Your task to perform on an android device: Search for a runner rug on Crate & Barrel Image 0: 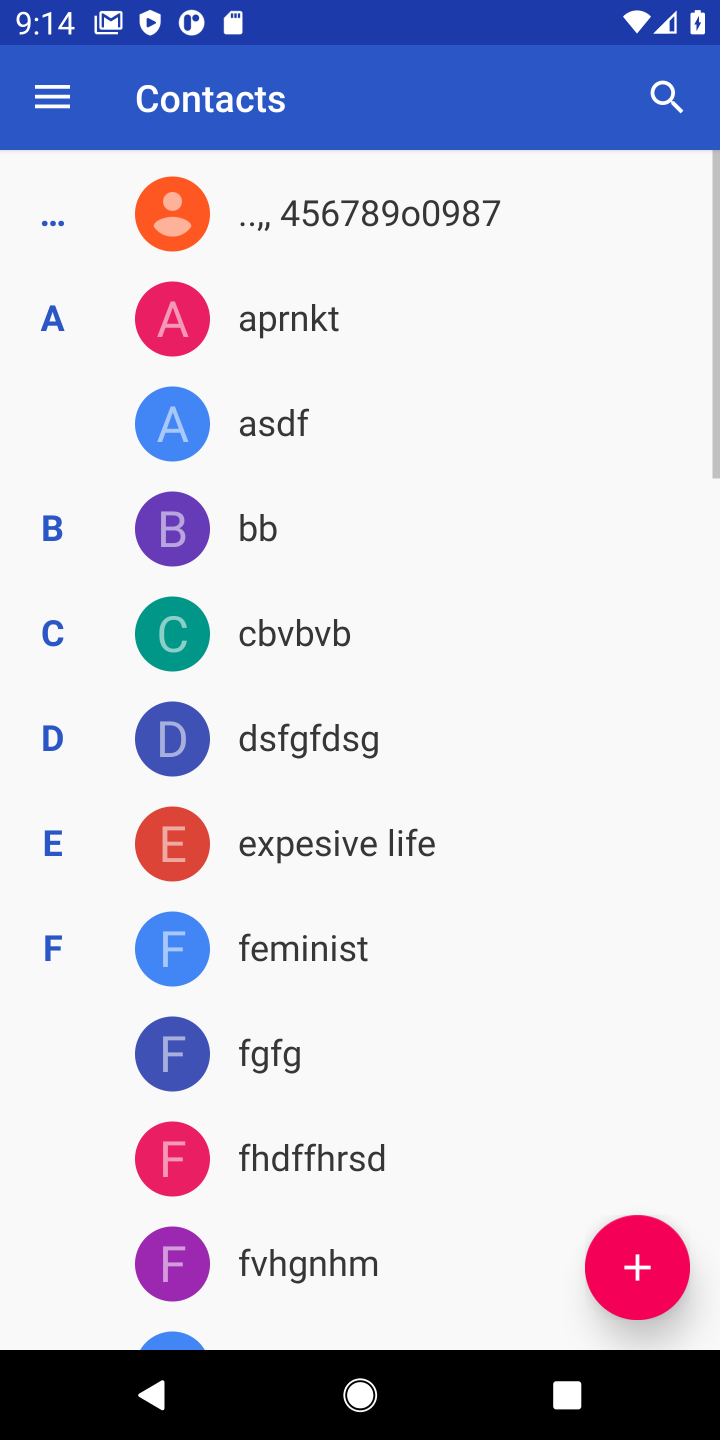
Step 0: press home button
Your task to perform on an android device: Search for a runner rug on Crate & Barrel Image 1: 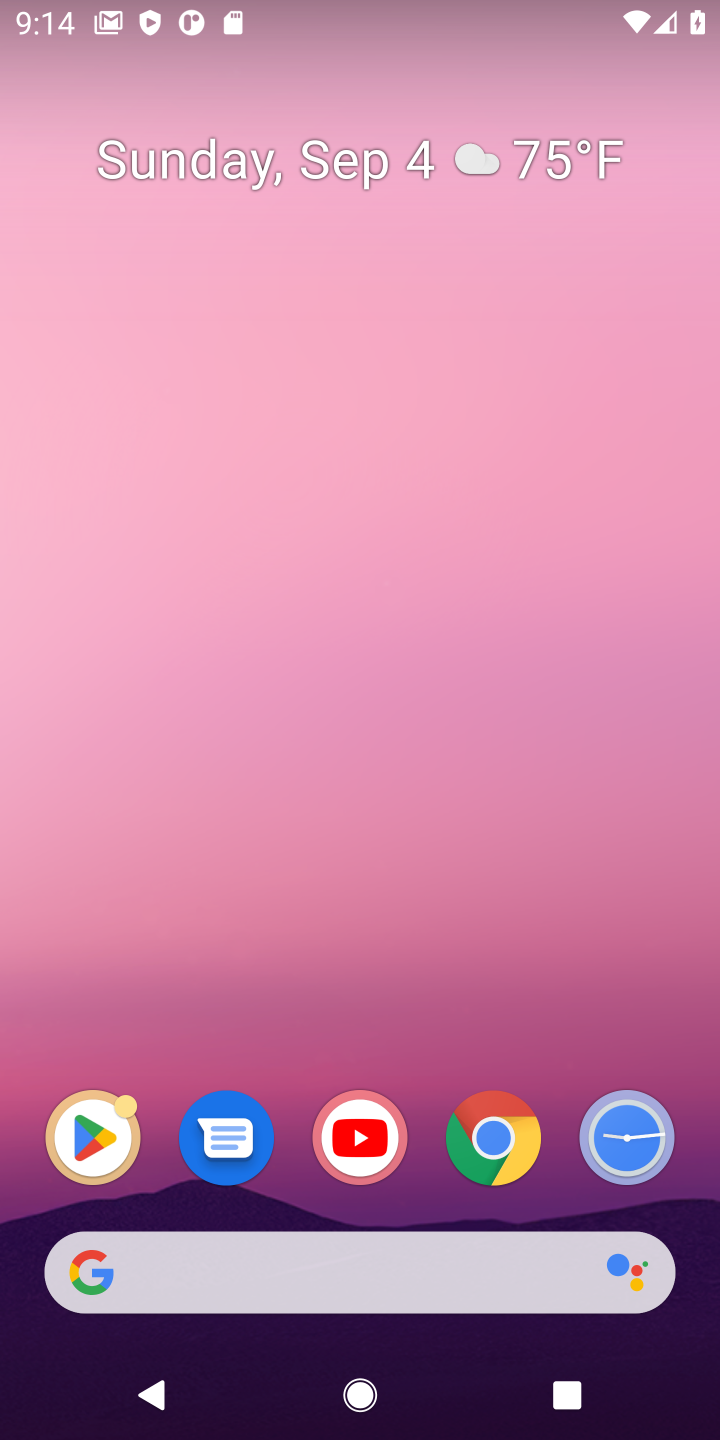
Step 1: click (485, 1123)
Your task to perform on an android device: Search for a runner rug on Crate & Barrel Image 2: 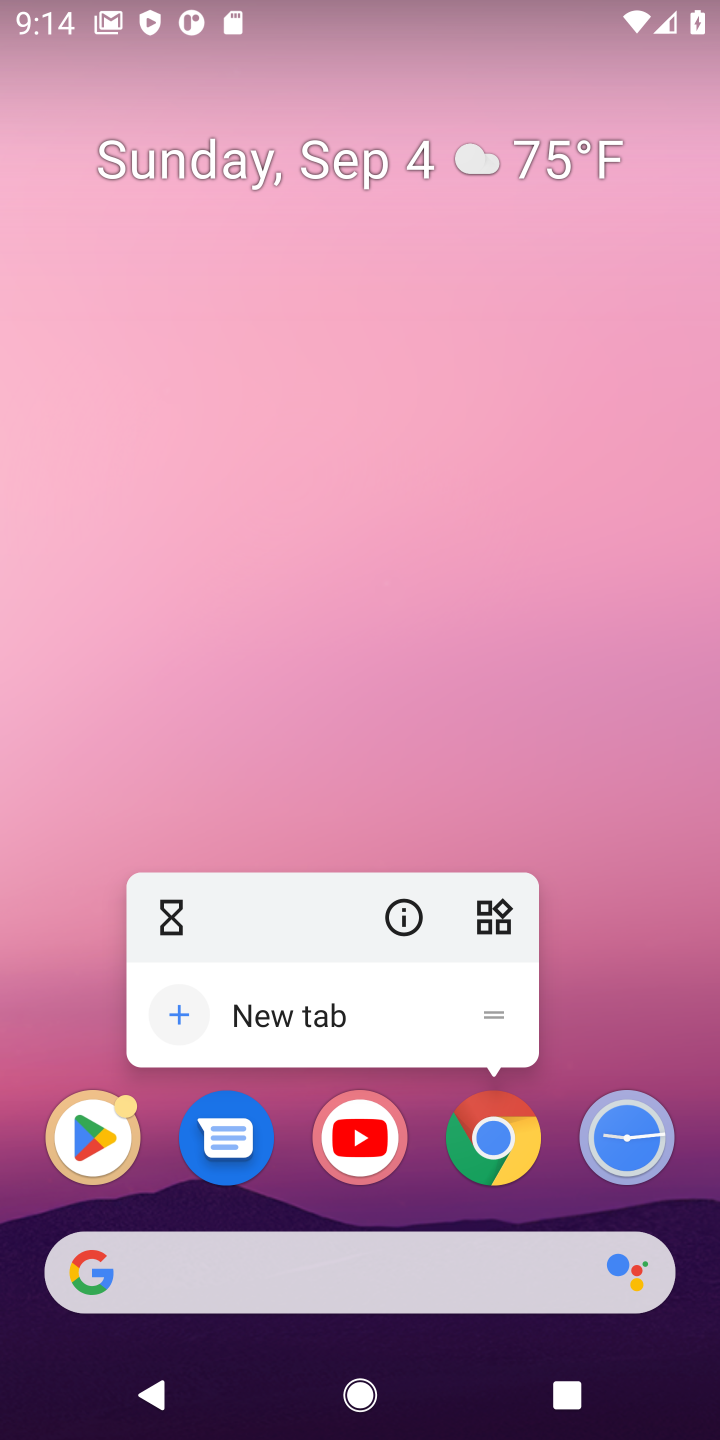
Step 2: click (485, 1124)
Your task to perform on an android device: Search for a runner rug on Crate & Barrel Image 3: 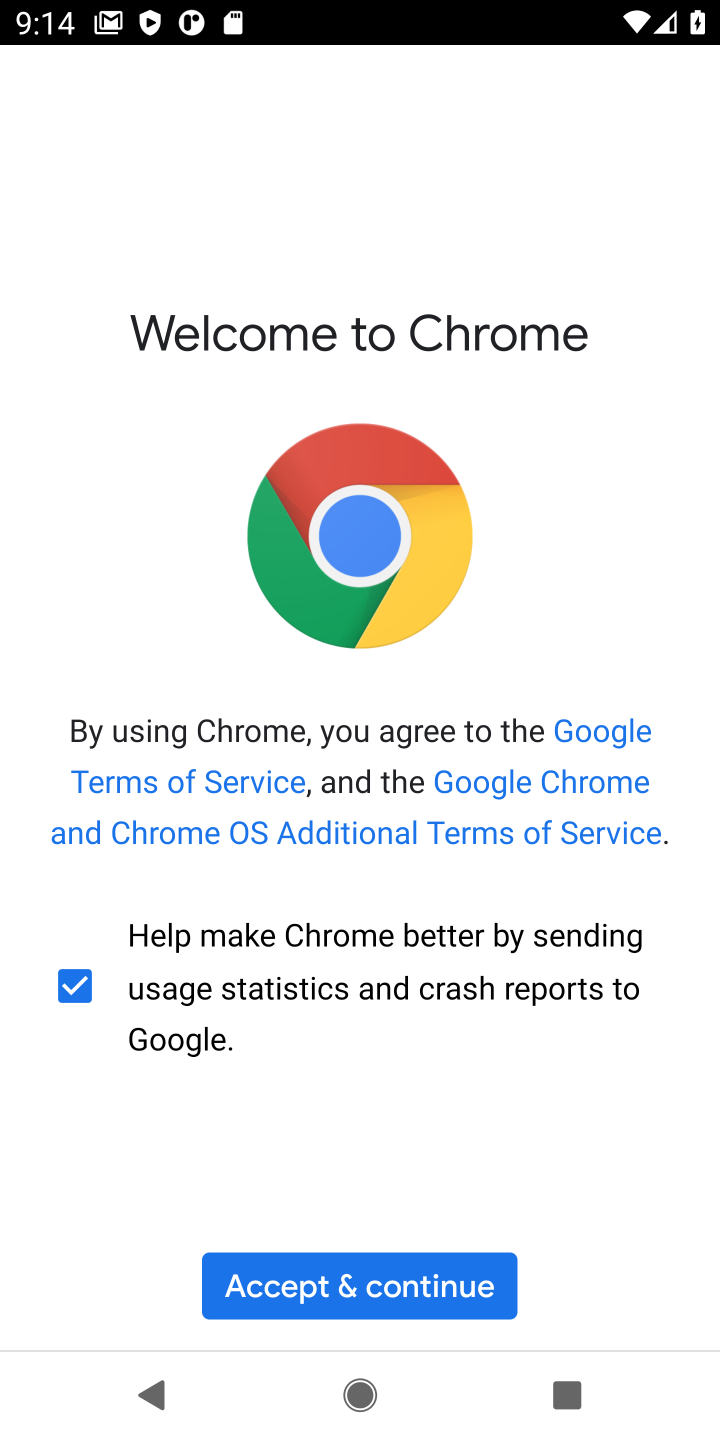
Step 3: click (383, 1288)
Your task to perform on an android device: Search for a runner rug on Crate & Barrel Image 4: 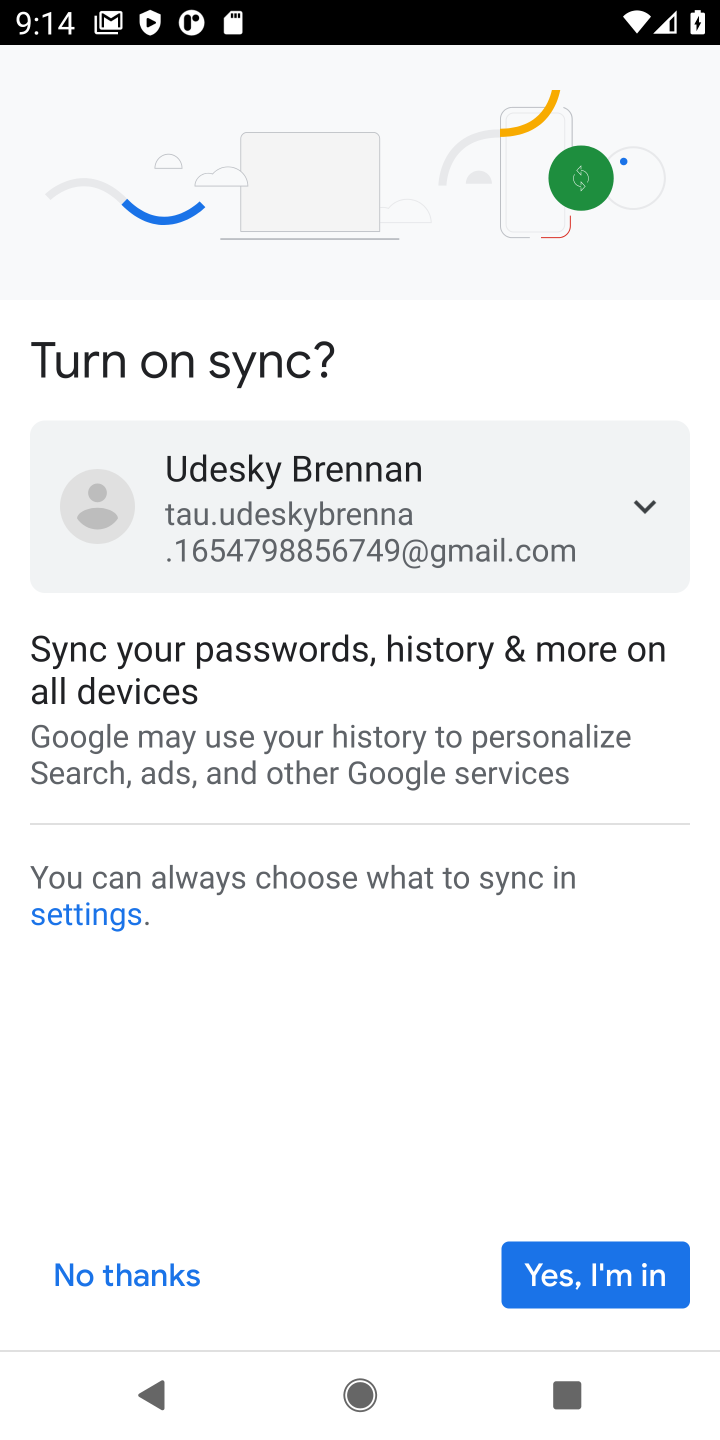
Step 4: click (614, 1257)
Your task to perform on an android device: Search for a runner rug on Crate & Barrel Image 5: 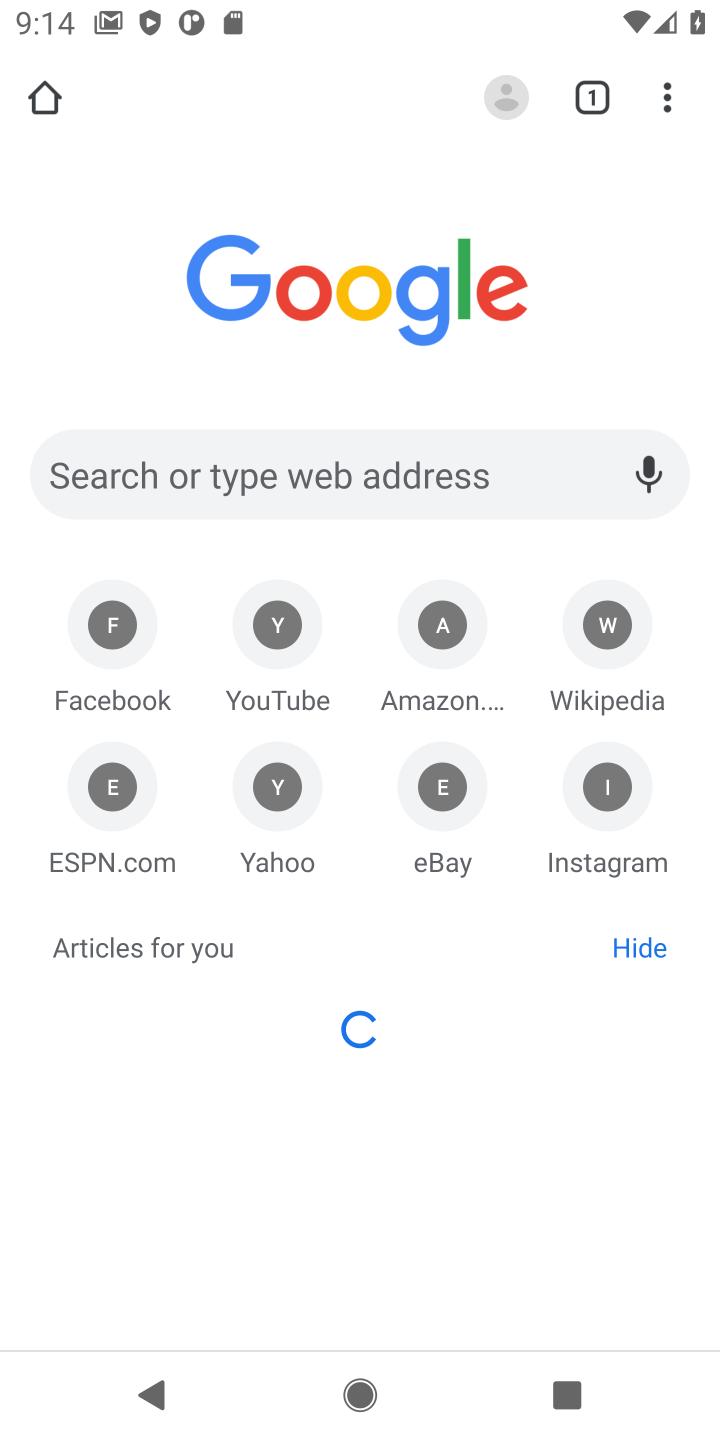
Step 5: click (401, 475)
Your task to perform on an android device: Search for a runner rug on Crate & Barrel Image 6: 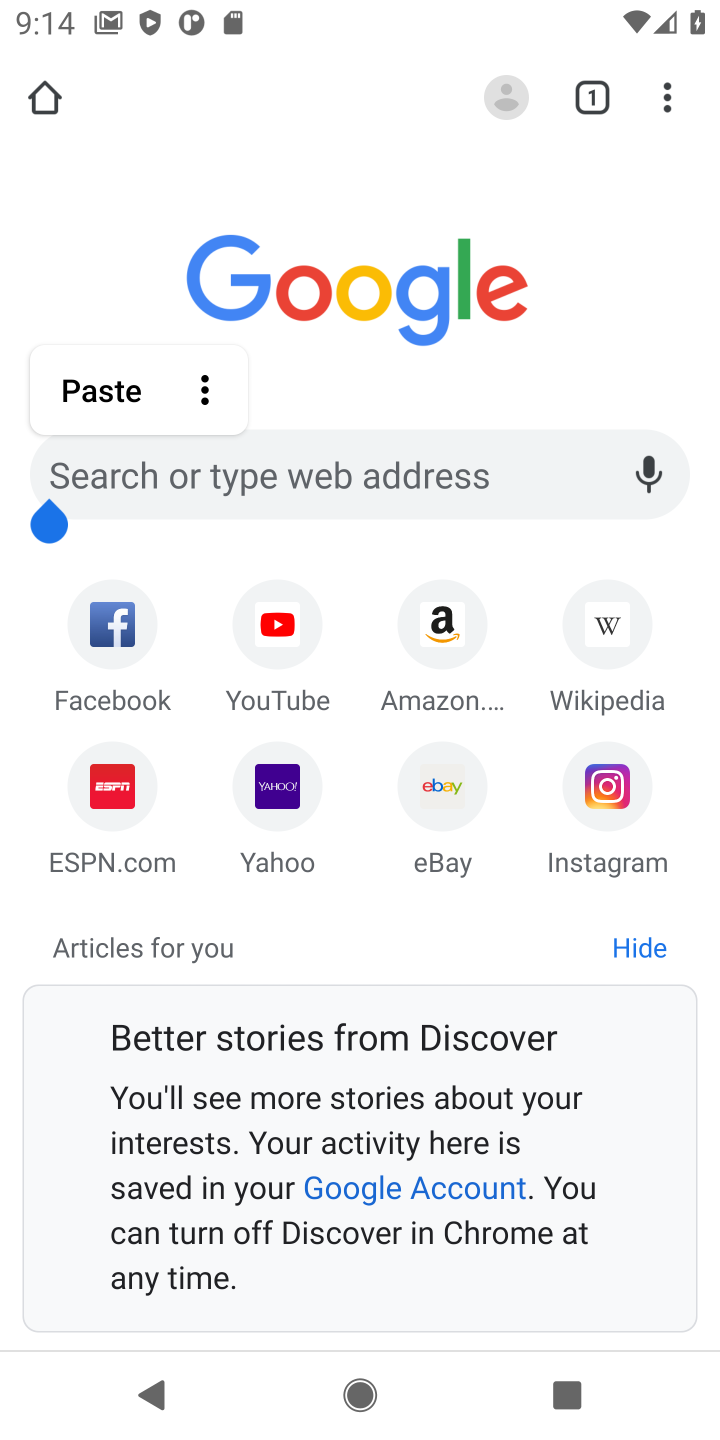
Step 6: click (425, 511)
Your task to perform on an android device: Search for a runner rug on Crate & Barrel Image 7: 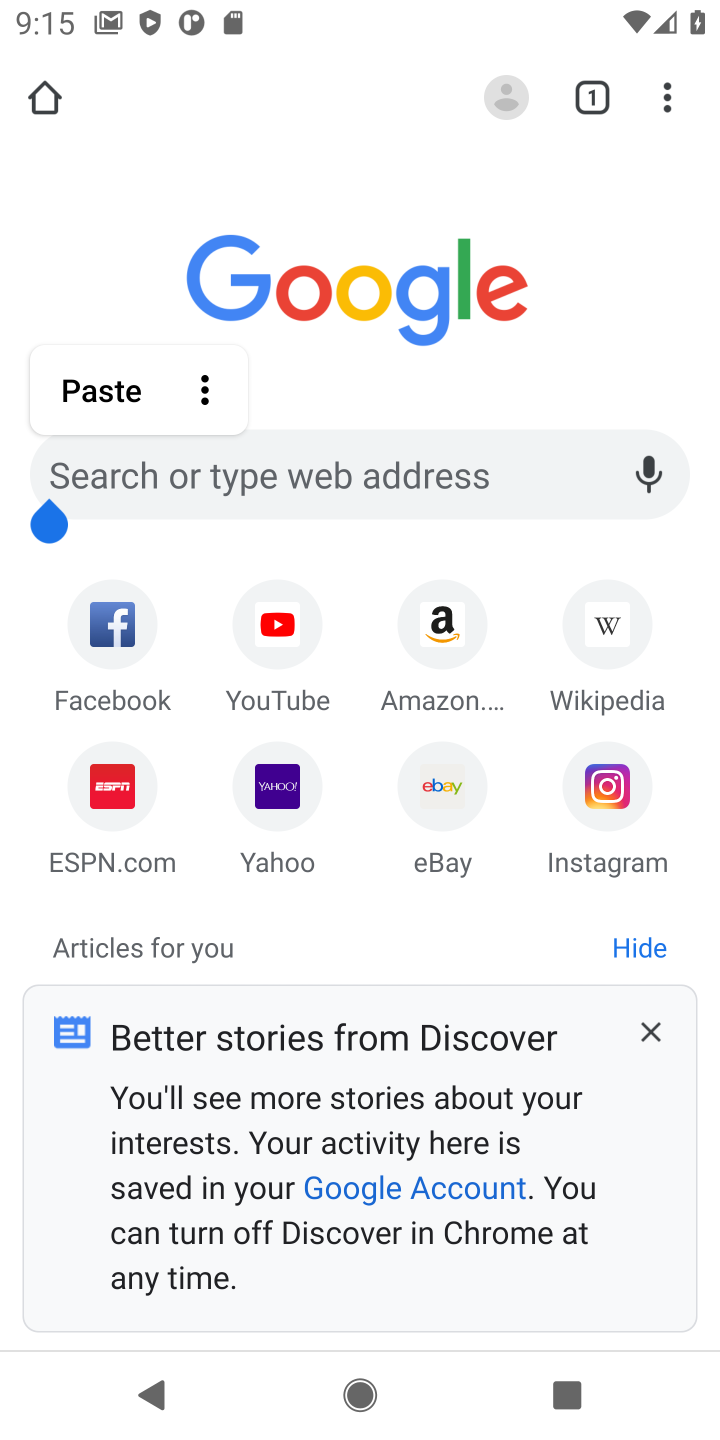
Step 7: click (384, 422)
Your task to perform on an android device: Search for a runner rug on Crate & Barrel Image 8: 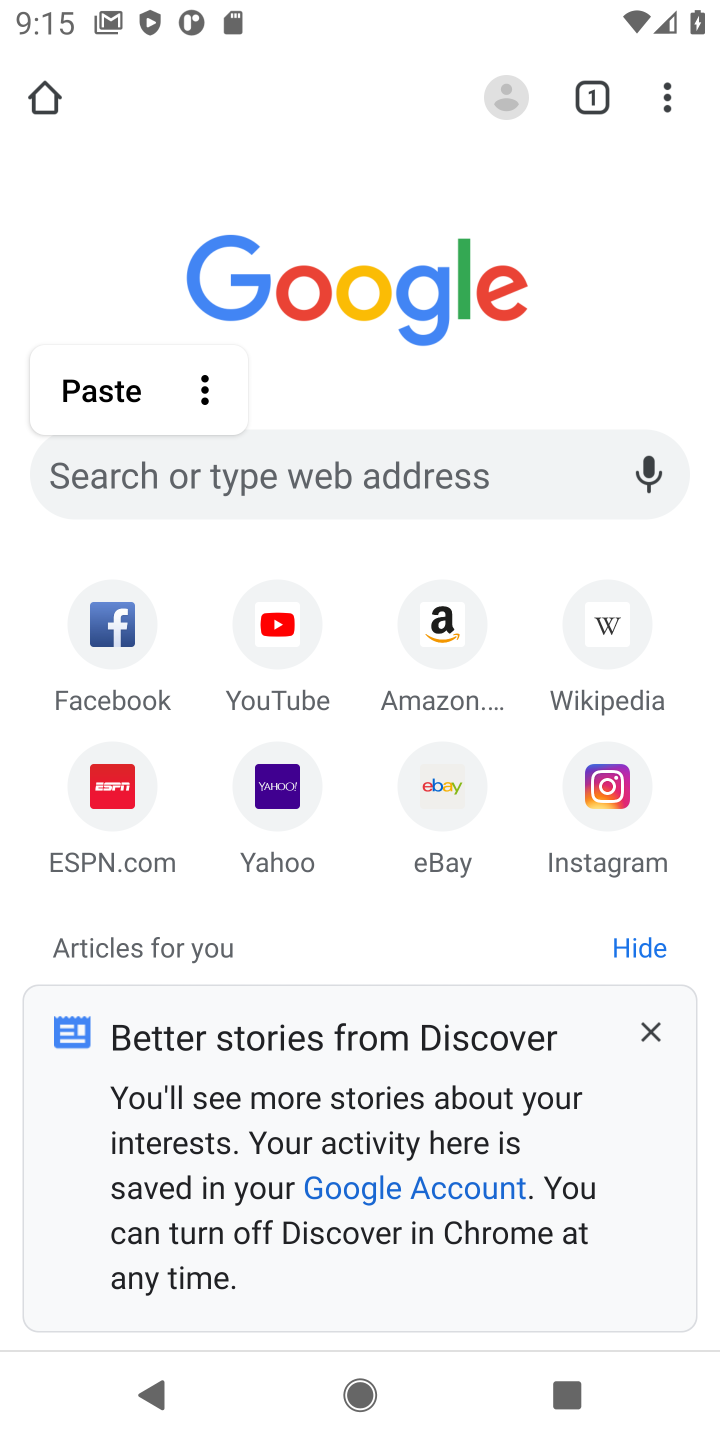
Step 8: click (392, 478)
Your task to perform on an android device: Search for a runner rug on Crate & Barrel Image 9: 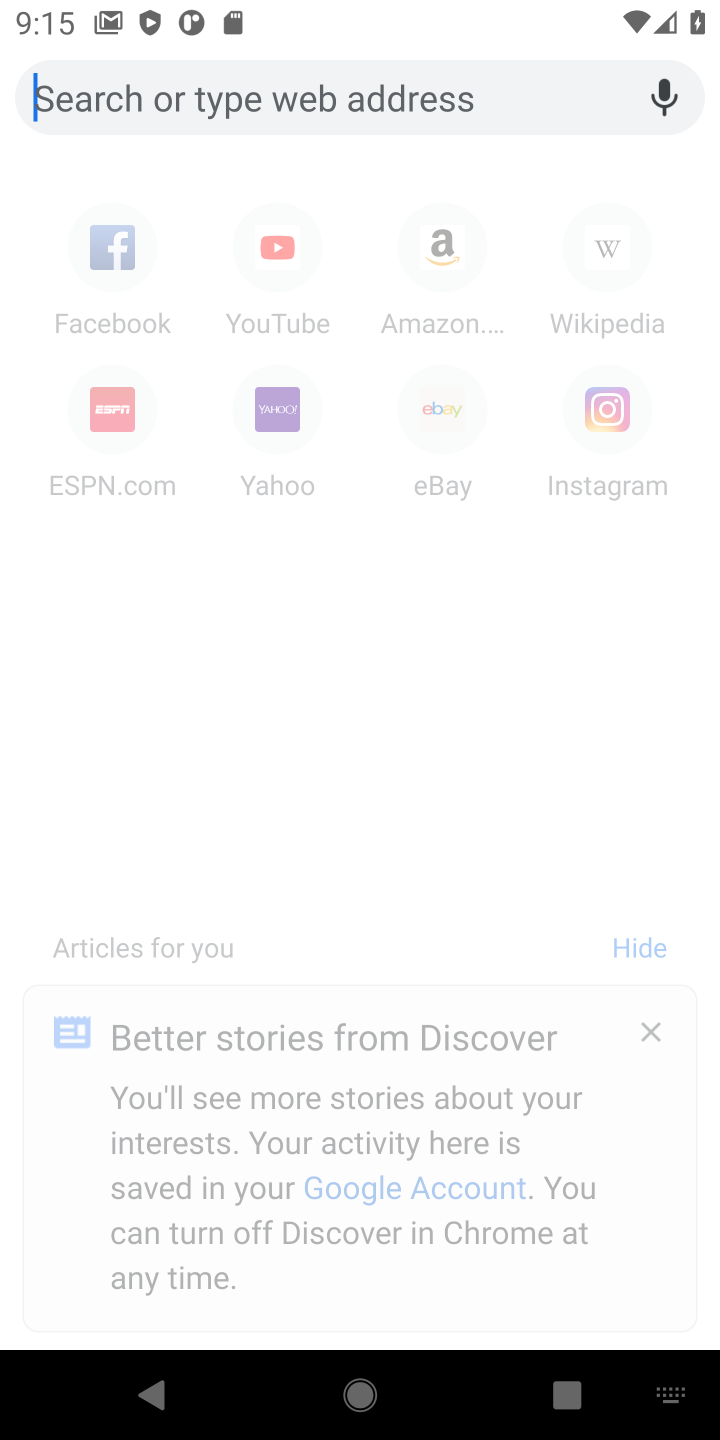
Step 9: press enter
Your task to perform on an android device: Search for a runner rug on Crate & Barrel Image 10: 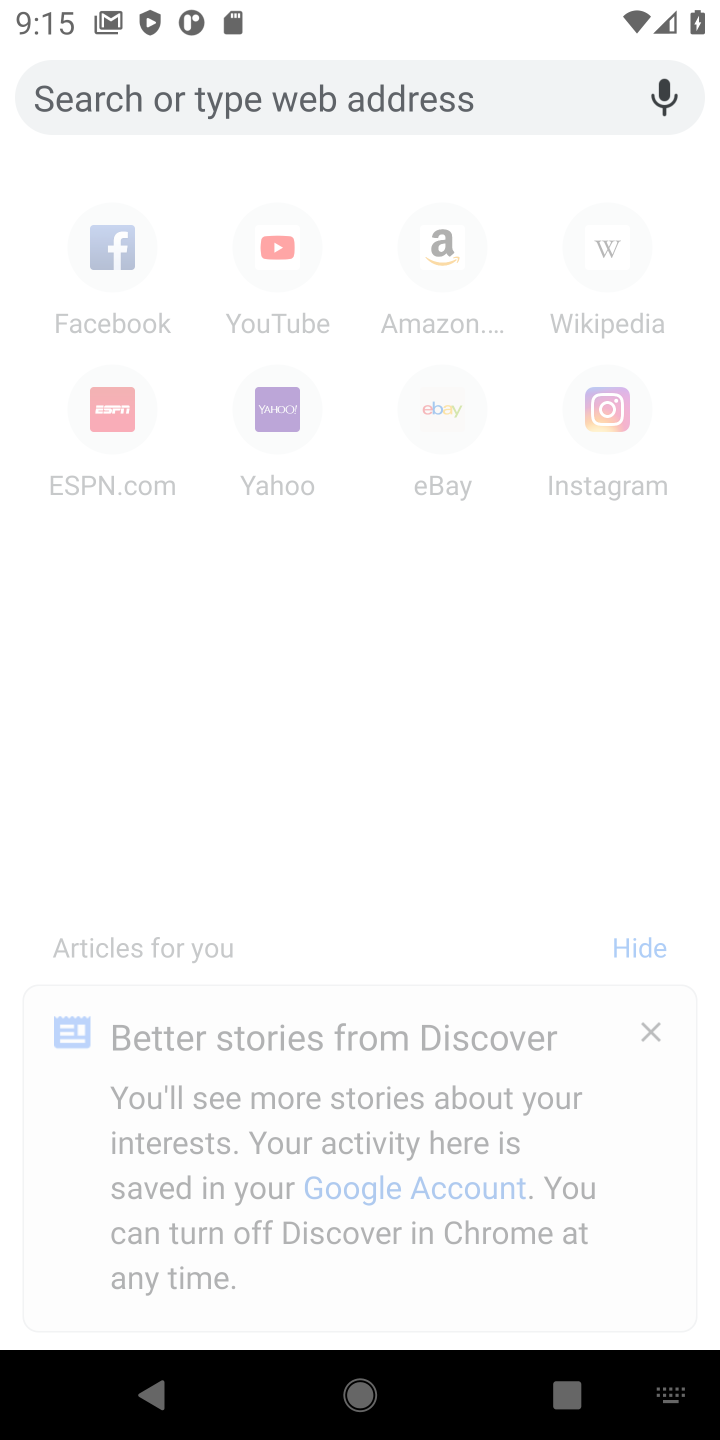
Step 10: type "crate and barrel"
Your task to perform on an android device: Search for a runner rug on Crate & Barrel Image 11: 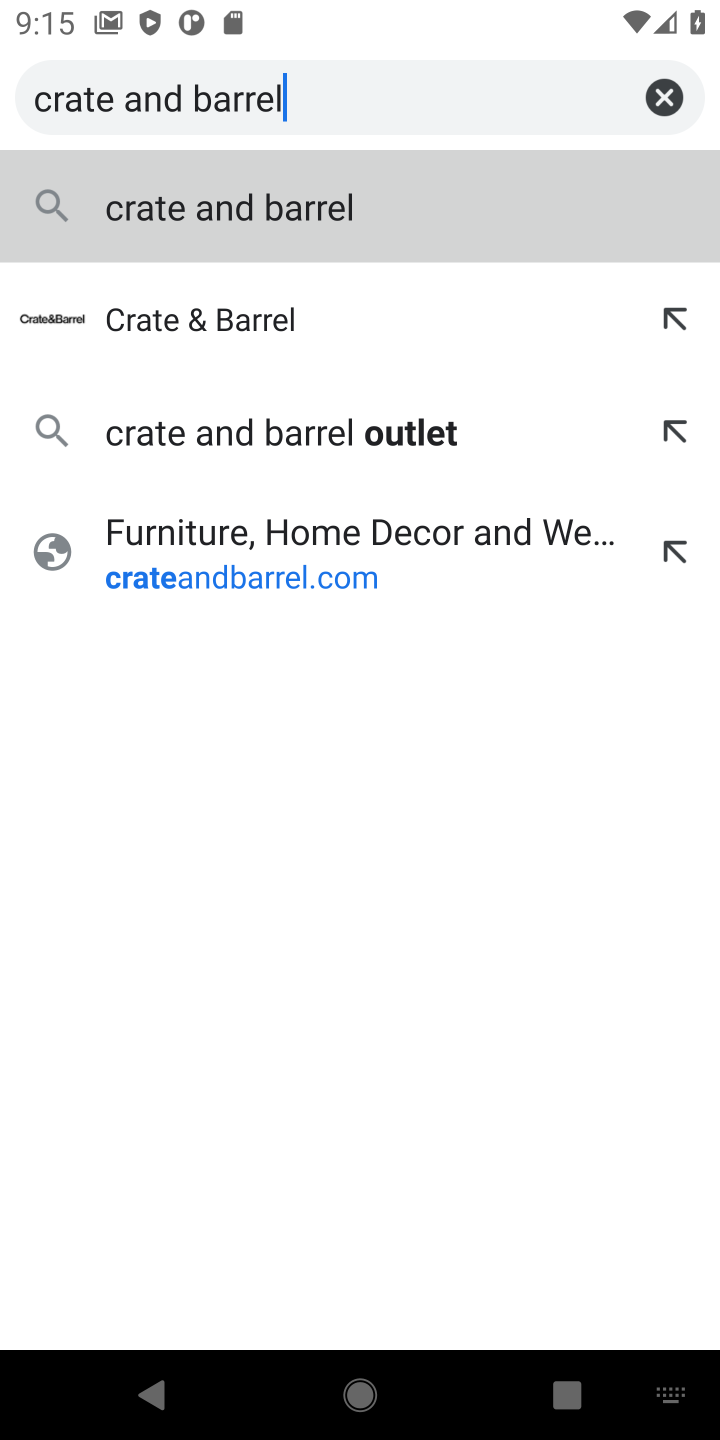
Step 11: click (365, 552)
Your task to perform on an android device: Search for a runner rug on Crate & Barrel Image 12: 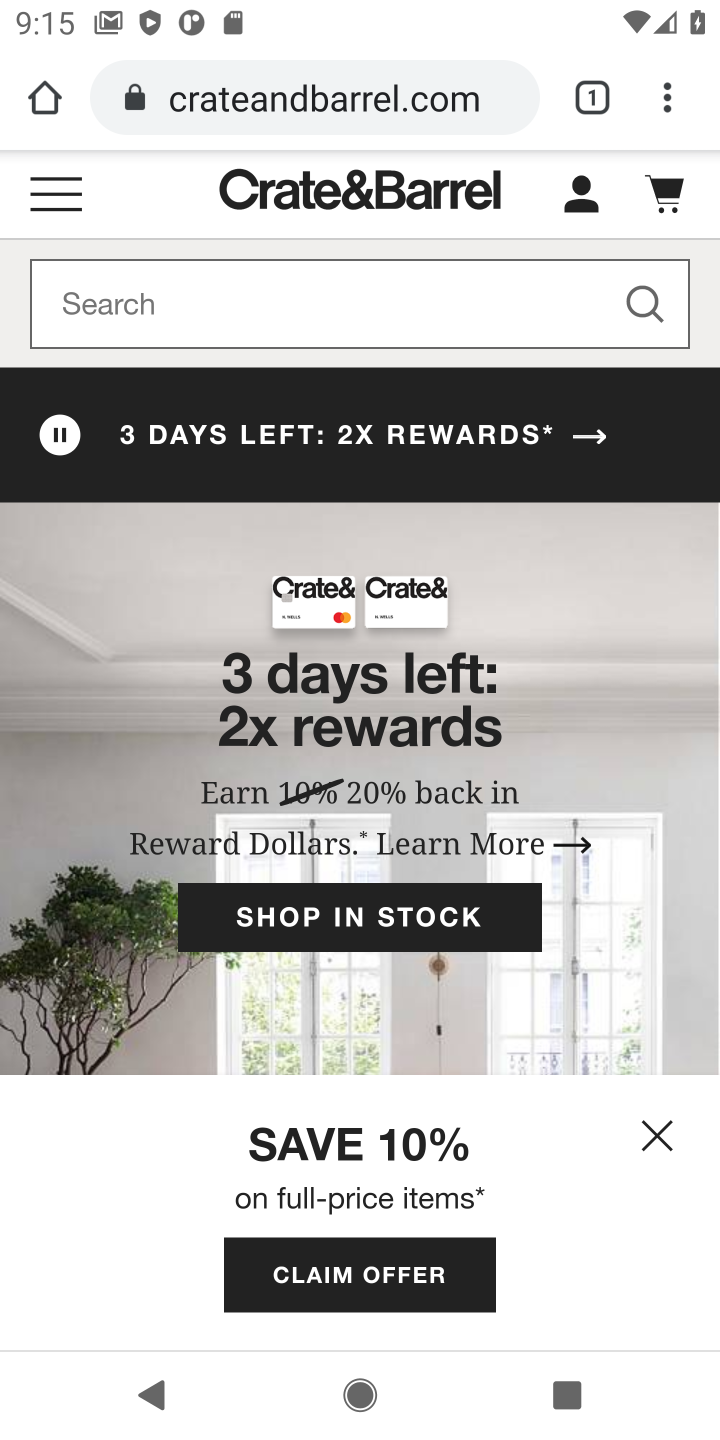
Step 12: click (371, 276)
Your task to perform on an android device: Search for a runner rug on Crate & Barrel Image 13: 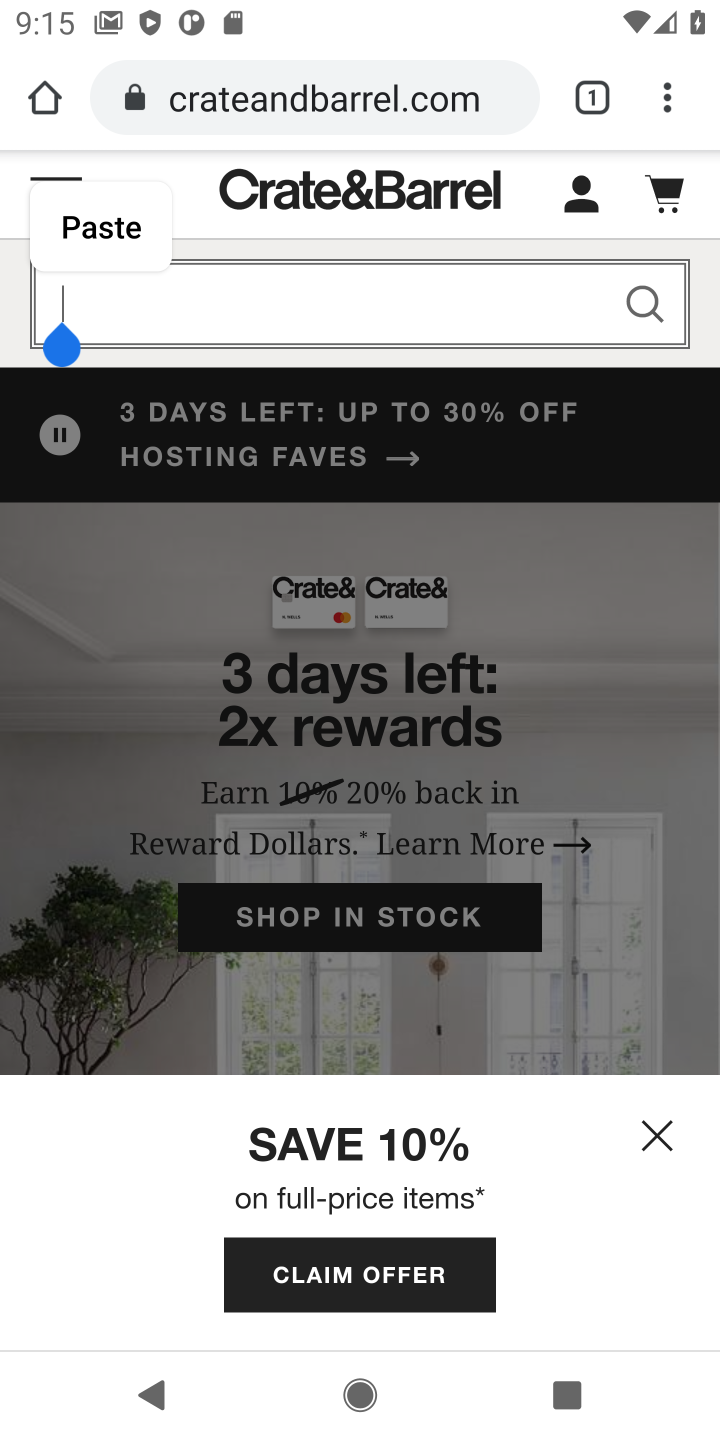
Step 13: type "runner rug"
Your task to perform on an android device: Search for a runner rug on Crate & Barrel Image 14: 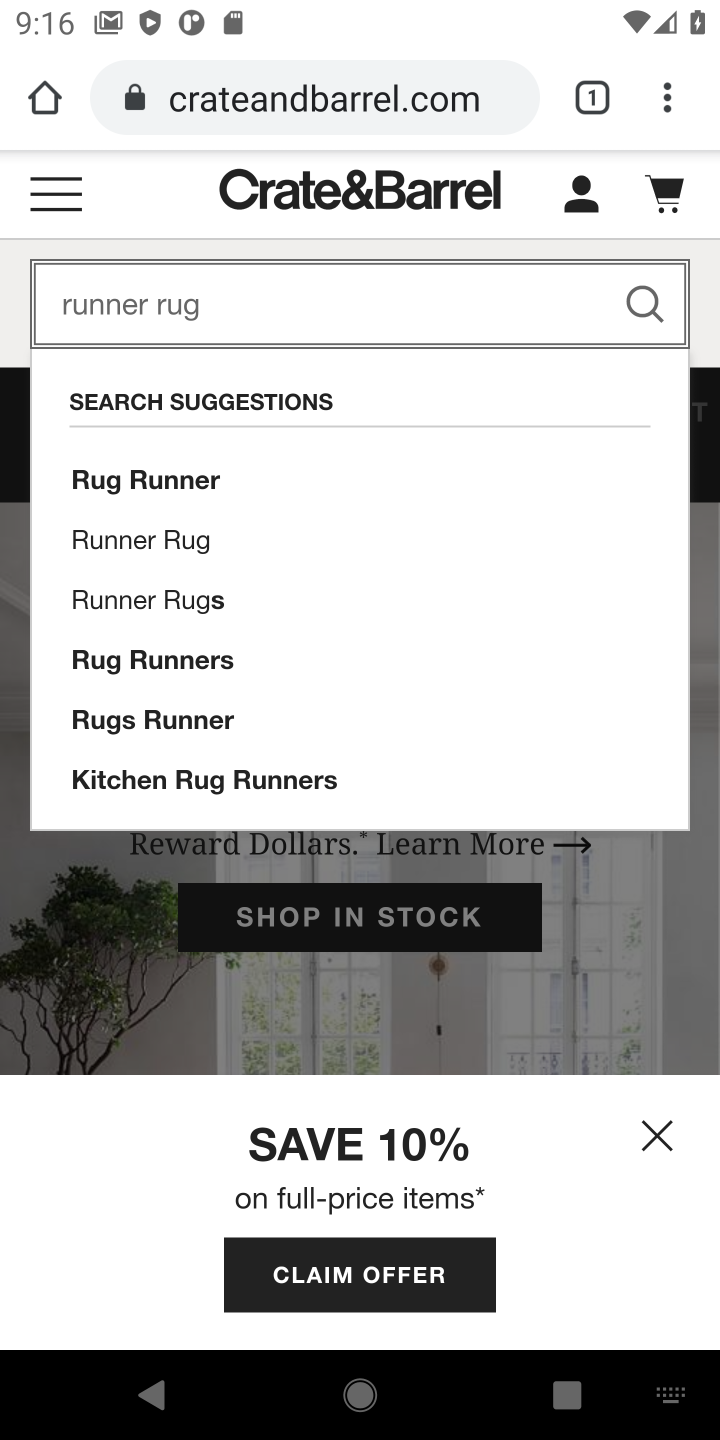
Step 14: press enter
Your task to perform on an android device: Search for a runner rug on Crate & Barrel Image 15: 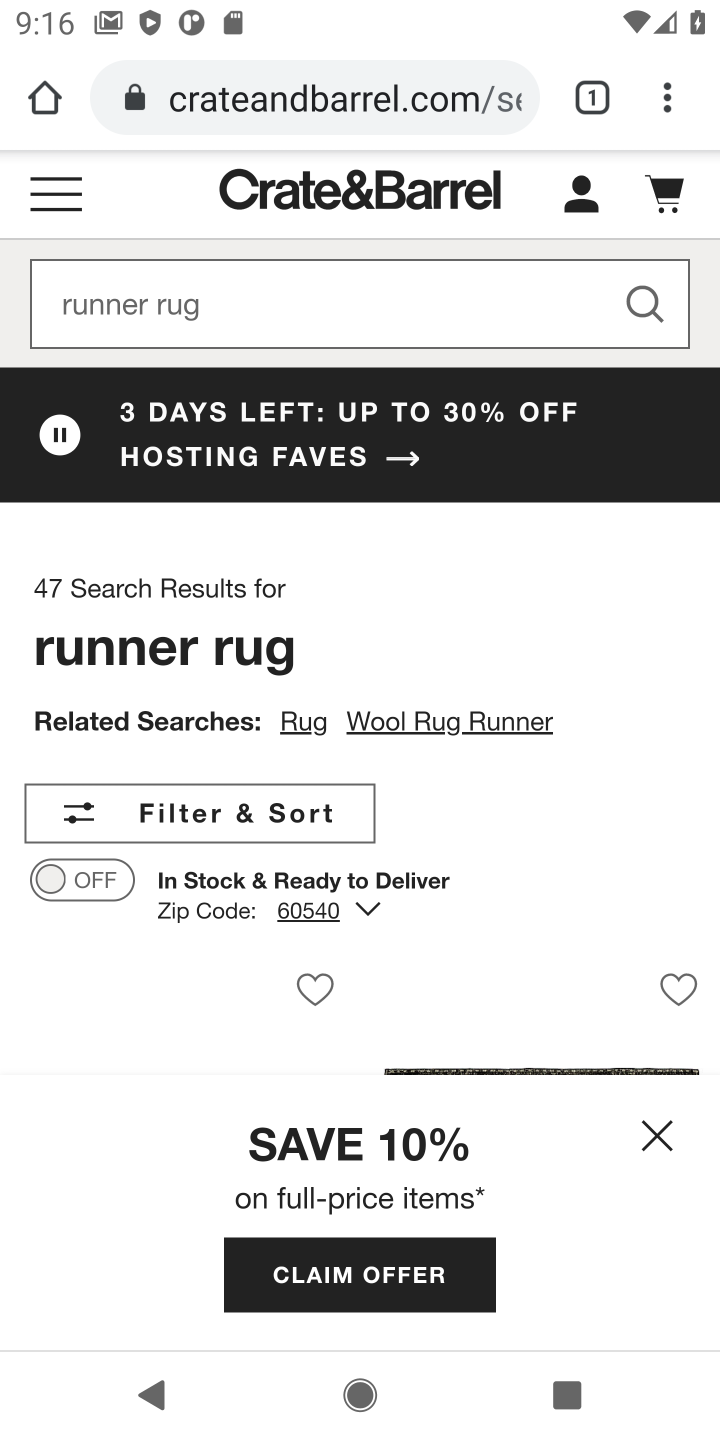
Step 15: task complete